Your task to perform on an android device: Go to network settings Image 0: 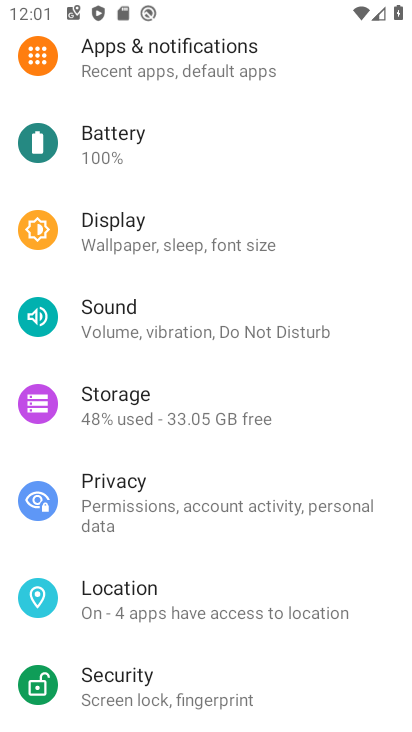
Step 0: drag from (181, 144) to (202, 633)
Your task to perform on an android device: Go to network settings Image 1: 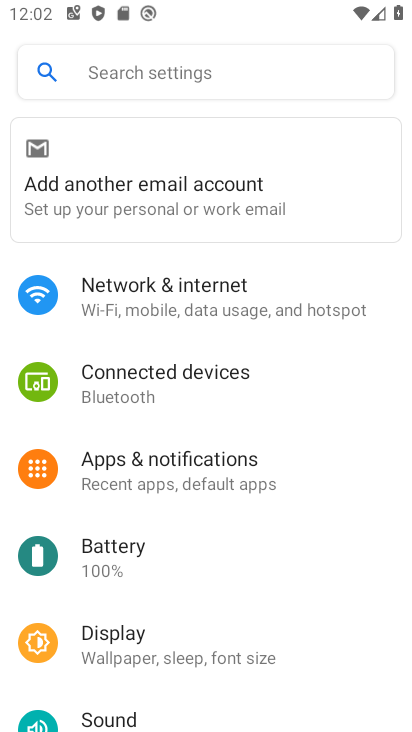
Step 1: click (193, 331)
Your task to perform on an android device: Go to network settings Image 2: 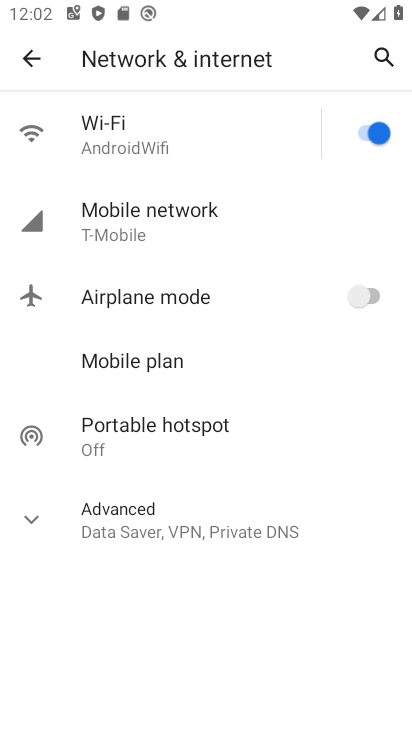
Step 2: click (180, 244)
Your task to perform on an android device: Go to network settings Image 3: 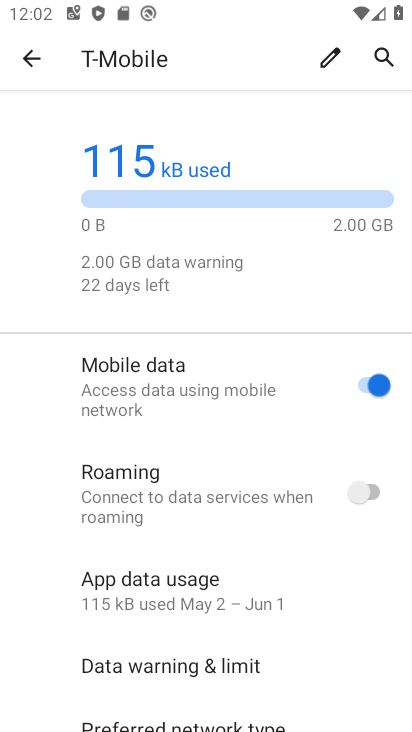
Step 3: task complete